Your task to perform on an android device: Go to calendar. Show me events next week Image 0: 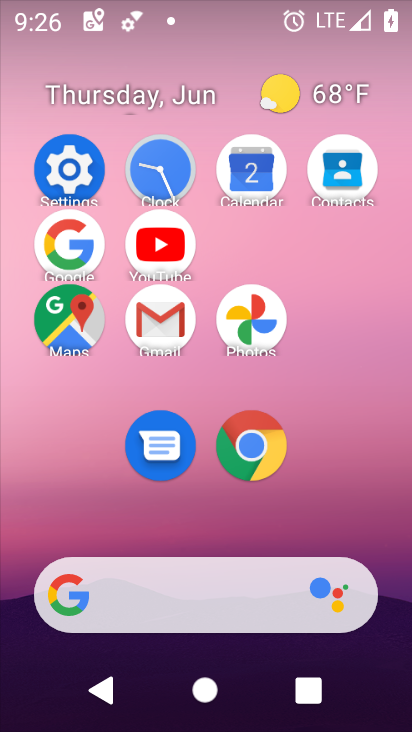
Step 0: click (259, 165)
Your task to perform on an android device: Go to calendar. Show me events next week Image 1: 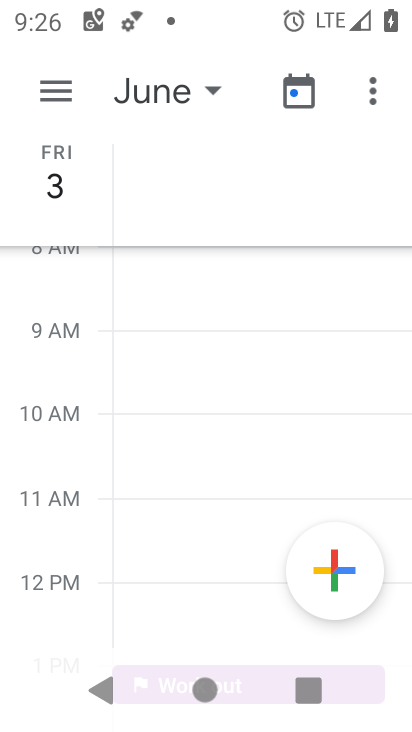
Step 1: click (51, 94)
Your task to perform on an android device: Go to calendar. Show me events next week Image 2: 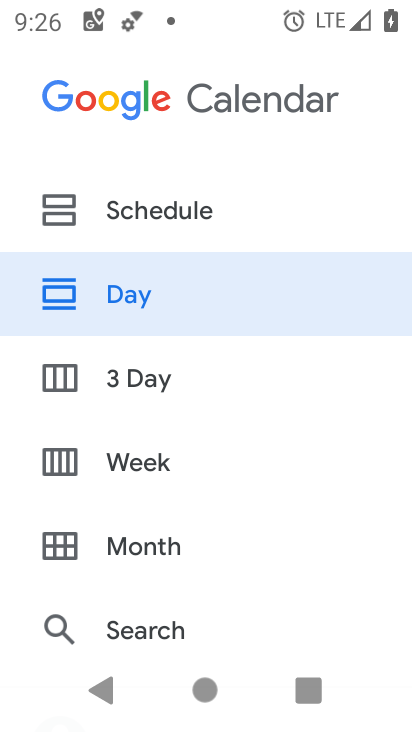
Step 2: click (255, 466)
Your task to perform on an android device: Go to calendar. Show me events next week Image 3: 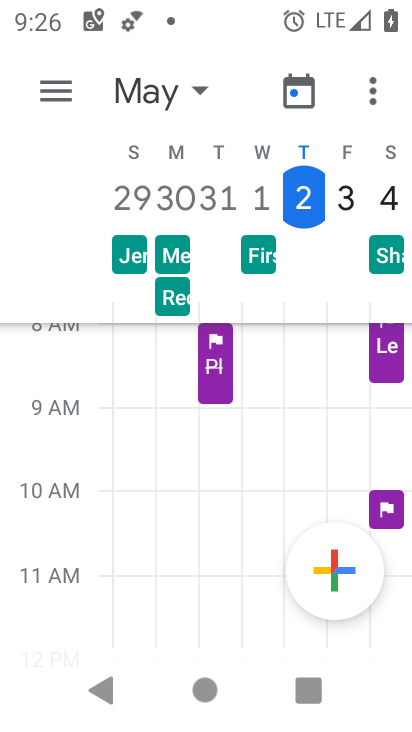
Step 3: task complete